Your task to perform on an android device: choose inbox layout in the gmail app Image 0: 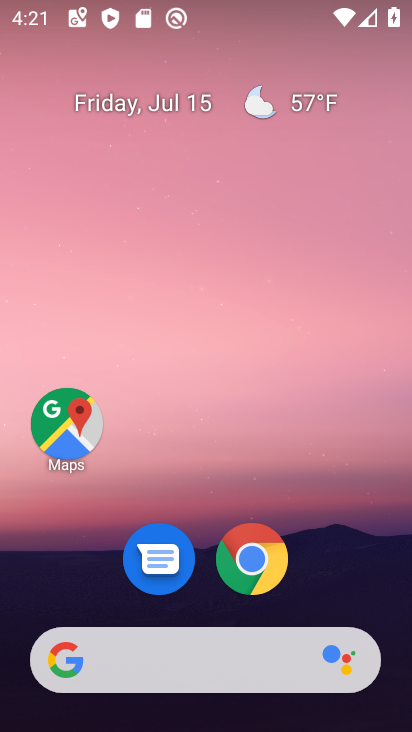
Step 0: drag from (89, 533) to (167, 7)
Your task to perform on an android device: choose inbox layout in the gmail app Image 1: 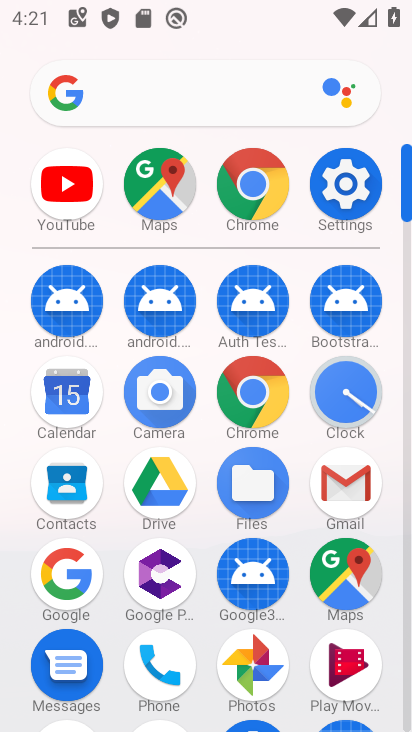
Step 1: click (351, 486)
Your task to perform on an android device: choose inbox layout in the gmail app Image 2: 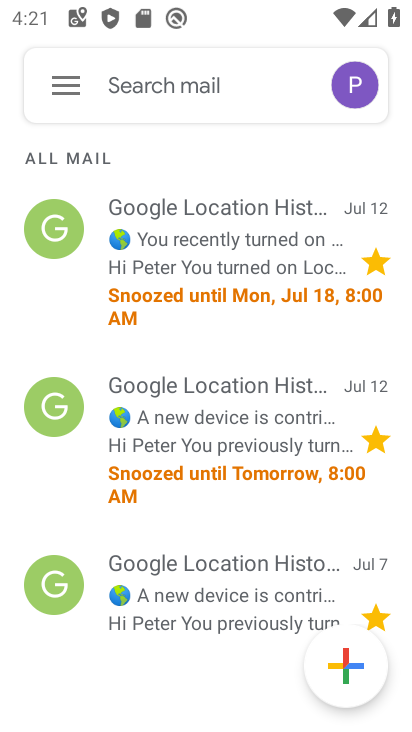
Step 2: click (68, 79)
Your task to perform on an android device: choose inbox layout in the gmail app Image 3: 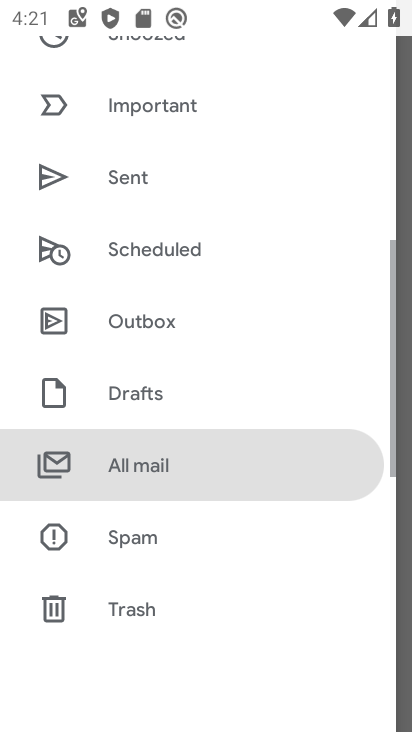
Step 3: drag from (138, 592) to (237, 26)
Your task to perform on an android device: choose inbox layout in the gmail app Image 4: 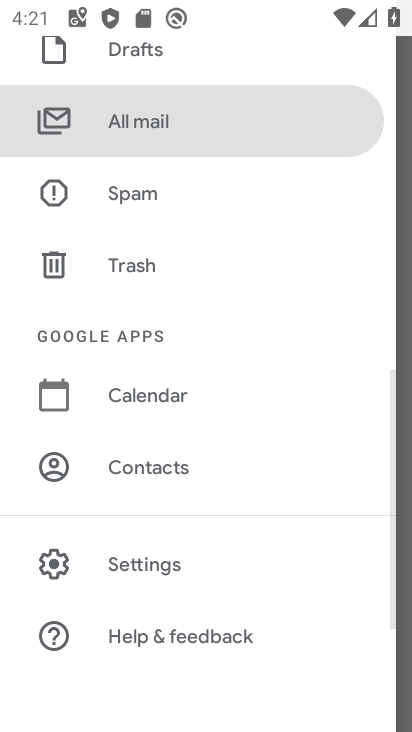
Step 4: click (157, 530)
Your task to perform on an android device: choose inbox layout in the gmail app Image 5: 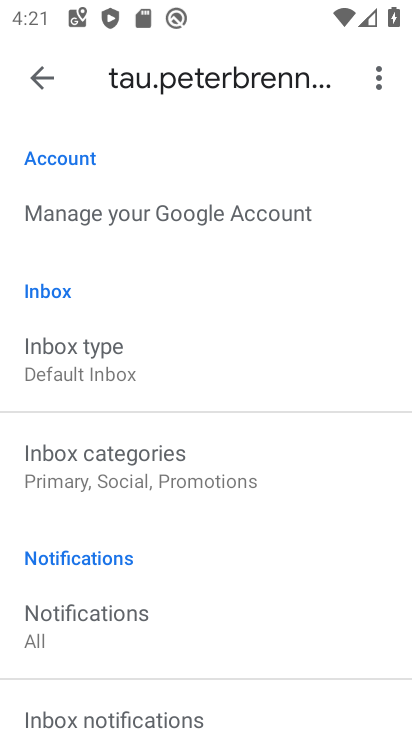
Step 5: click (96, 359)
Your task to perform on an android device: choose inbox layout in the gmail app Image 6: 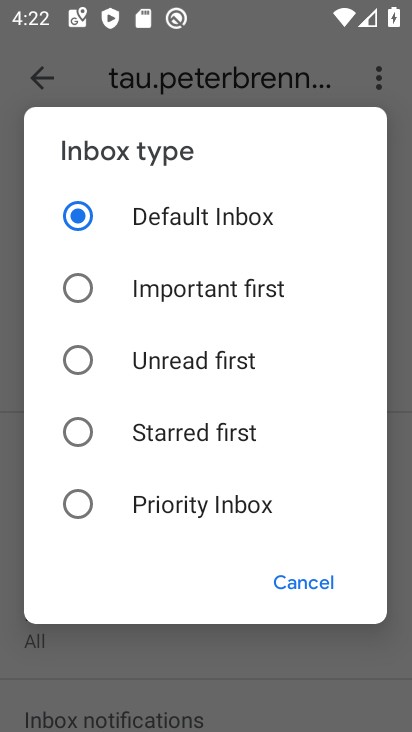
Step 6: task complete